Your task to perform on an android device: Open Reddit.com Image 0: 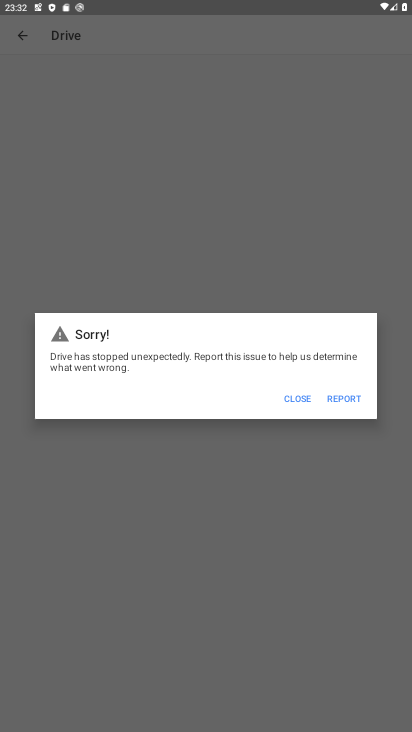
Step 0: press home button
Your task to perform on an android device: Open Reddit.com Image 1: 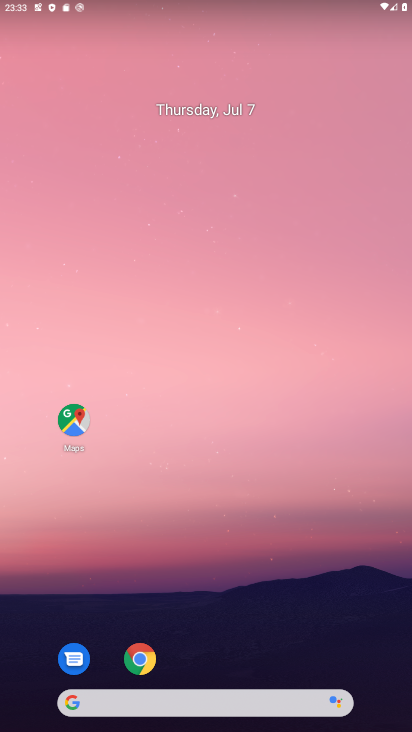
Step 1: click (153, 699)
Your task to perform on an android device: Open Reddit.com Image 2: 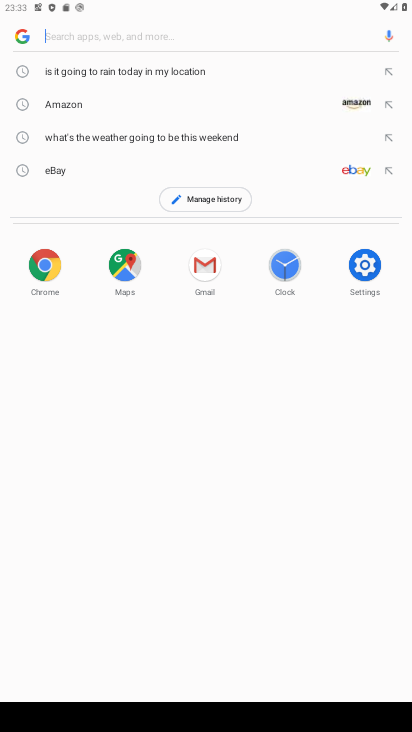
Step 2: type "reddit"
Your task to perform on an android device: Open Reddit.com Image 3: 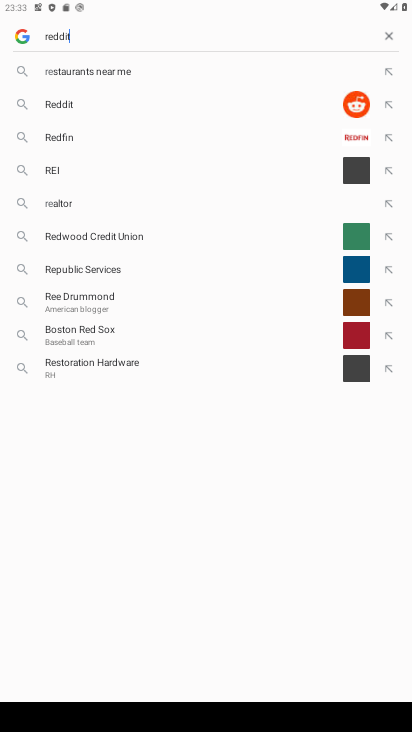
Step 3: type ""
Your task to perform on an android device: Open Reddit.com Image 4: 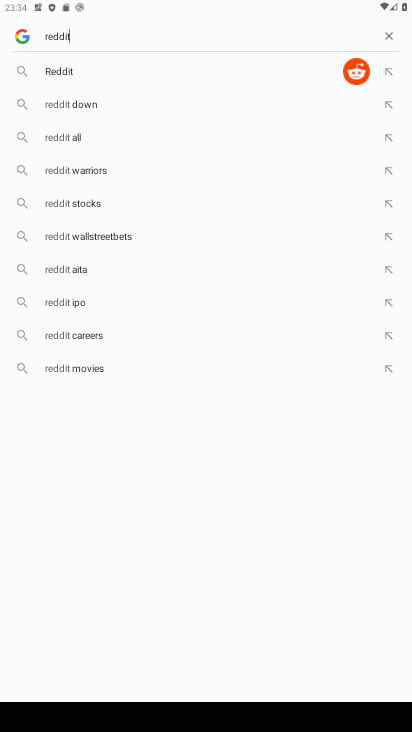
Step 4: click (325, 74)
Your task to perform on an android device: Open Reddit.com Image 5: 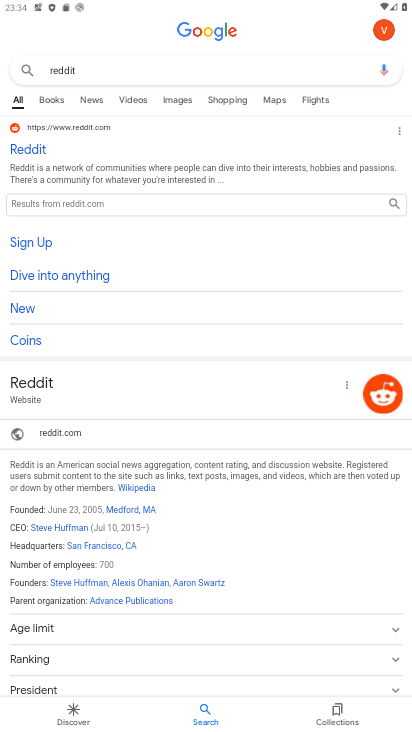
Step 5: click (27, 151)
Your task to perform on an android device: Open Reddit.com Image 6: 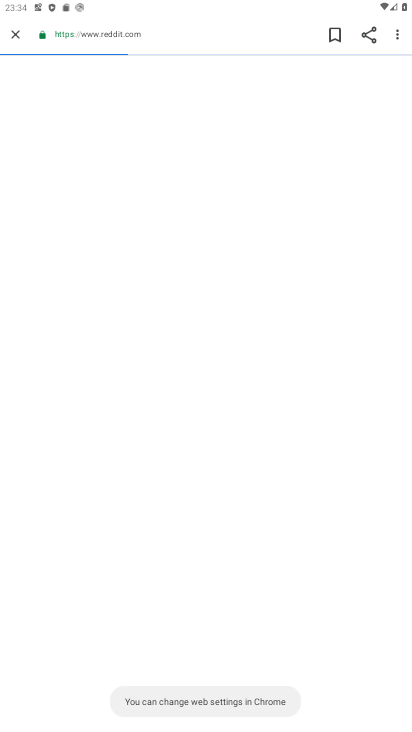
Step 6: task complete